Your task to perform on an android device: Open calendar and show me the fourth week of next month Image 0: 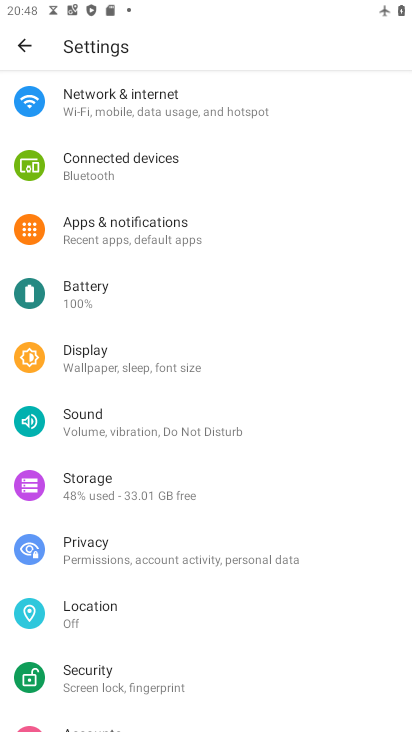
Step 0: press home button
Your task to perform on an android device: Open calendar and show me the fourth week of next month Image 1: 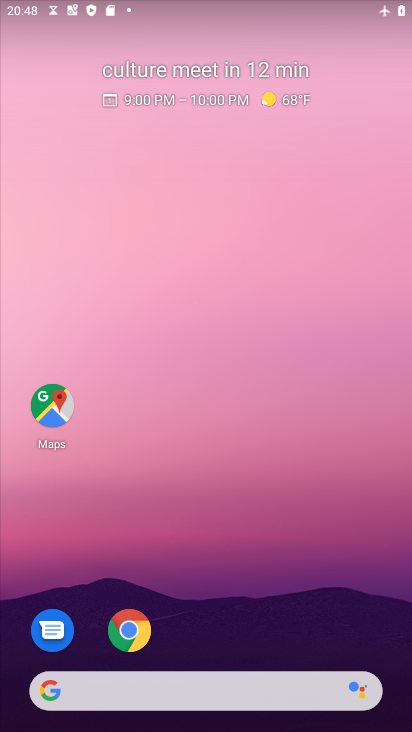
Step 1: drag from (265, 611) to (302, 30)
Your task to perform on an android device: Open calendar and show me the fourth week of next month Image 2: 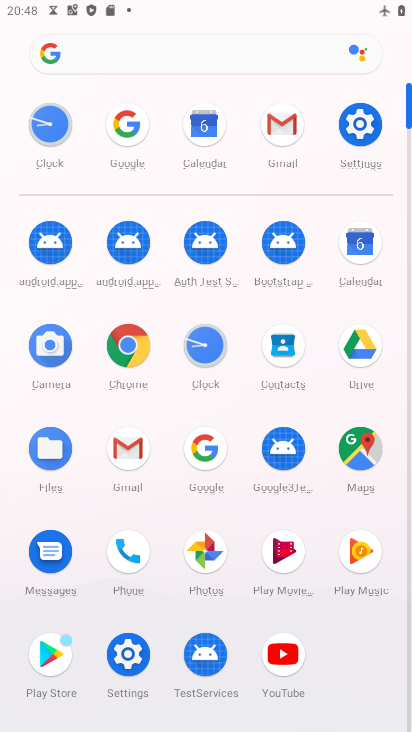
Step 2: click (204, 125)
Your task to perform on an android device: Open calendar and show me the fourth week of next month Image 3: 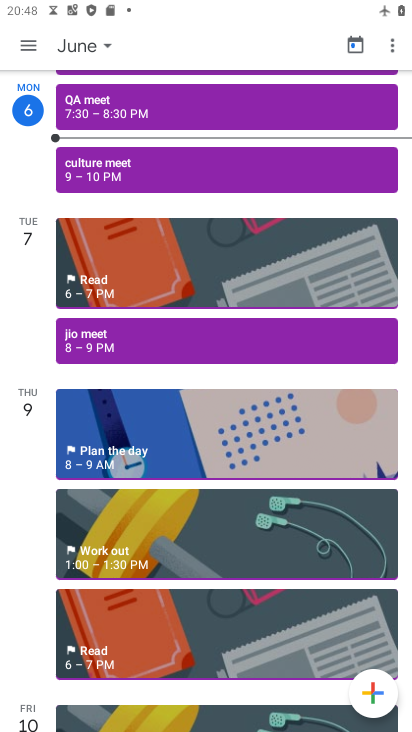
Step 3: click (357, 46)
Your task to perform on an android device: Open calendar and show me the fourth week of next month Image 4: 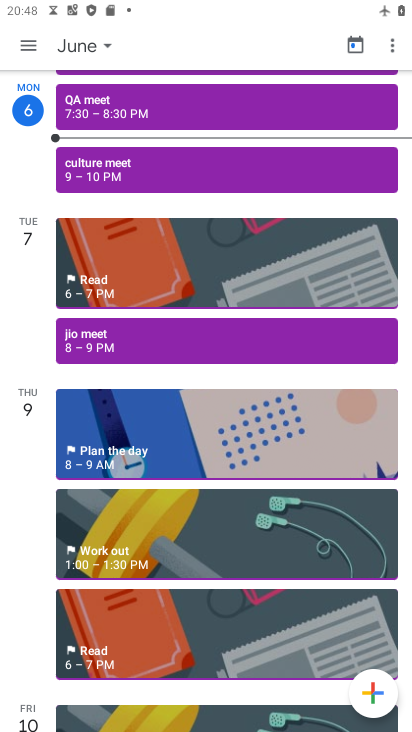
Step 4: click (102, 46)
Your task to perform on an android device: Open calendar and show me the fourth week of next month Image 5: 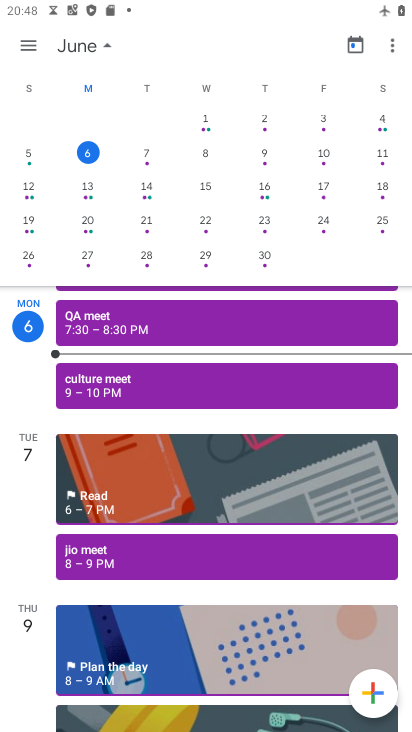
Step 5: drag from (367, 205) to (40, 214)
Your task to perform on an android device: Open calendar and show me the fourth week of next month Image 6: 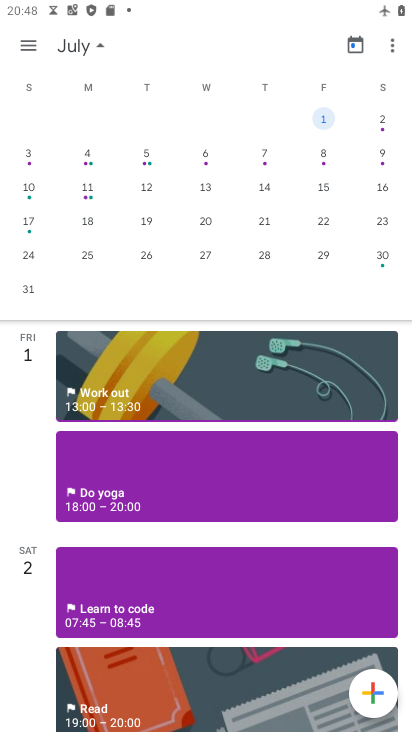
Step 6: click (88, 260)
Your task to perform on an android device: Open calendar and show me the fourth week of next month Image 7: 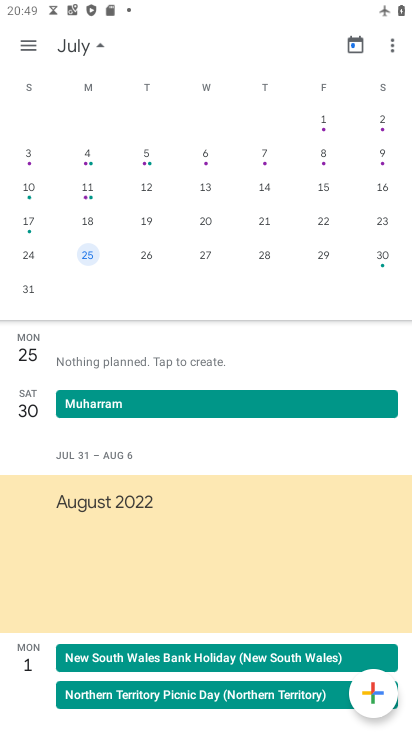
Step 7: click (27, 50)
Your task to perform on an android device: Open calendar and show me the fourth week of next month Image 8: 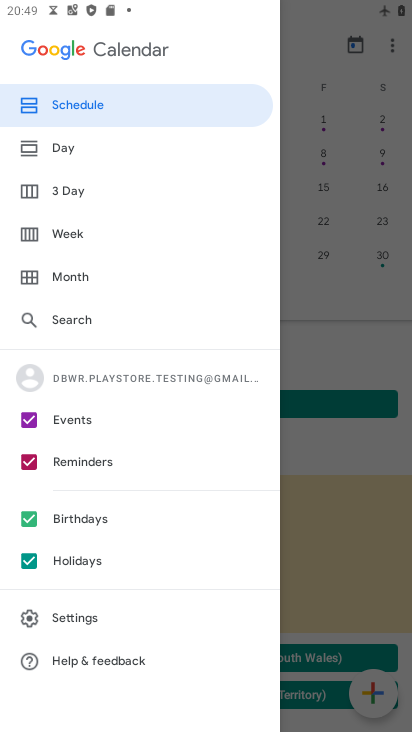
Step 8: click (87, 240)
Your task to perform on an android device: Open calendar and show me the fourth week of next month Image 9: 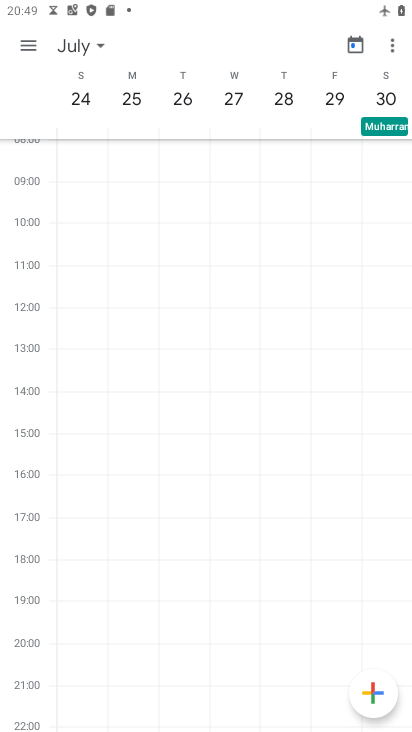
Step 9: task complete